Your task to perform on an android device: turn off notifications in google photos Image 0: 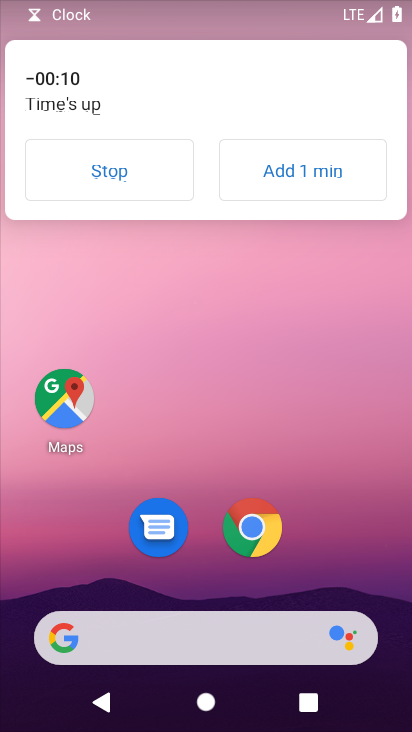
Step 0: drag from (362, 555) to (367, 172)
Your task to perform on an android device: turn off notifications in google photos Image 1: 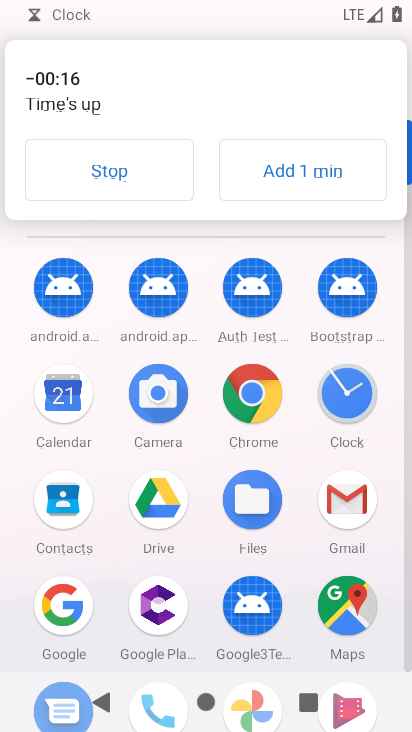
Step 1: drag from (202, 624) to (207, 327)
Your task to perform on an android device: turn off notifications in google photos Image 2: 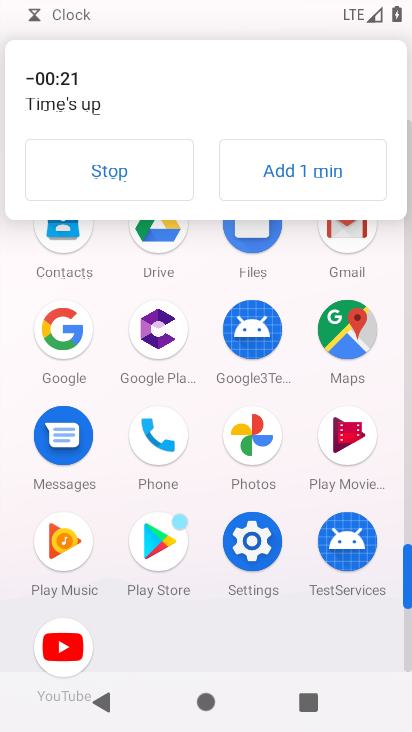
Step 2: click (259, 434)
Your task to perform on an android device: turn off notifications in google photos Image 3: 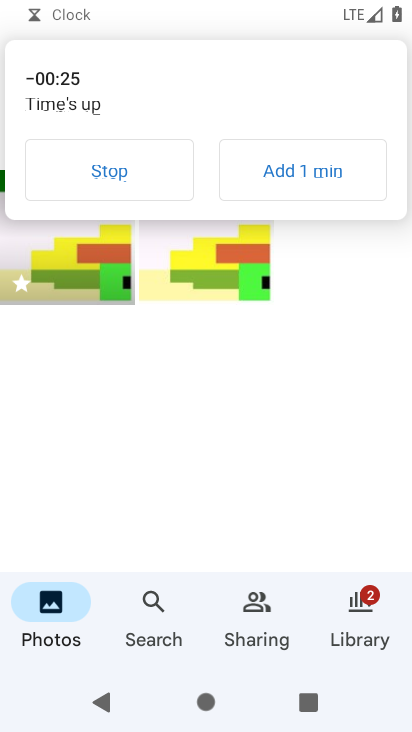
Step 3: click (113, 170)
Your task to perform on an android device: turn off notifications in google photos Image 4: 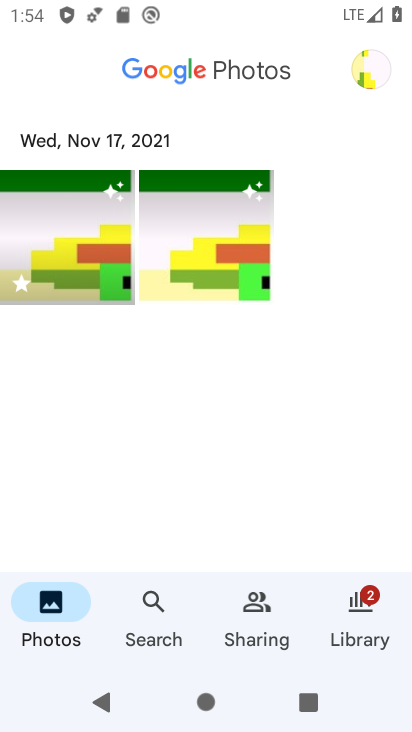
Step 4: click (365, 69)
Your task to perform on an android device: turn off notifications in google photos Image 5: 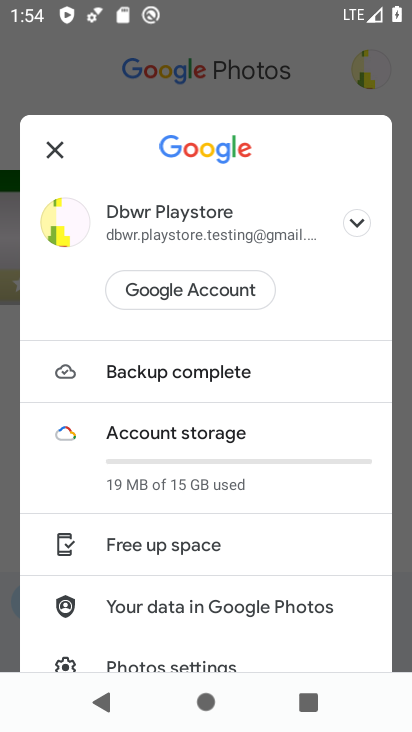
Step 5: drag from (300, 534) to (310, 409)
Your task to perform on an android device: turn off notifications in google photos Image 6: 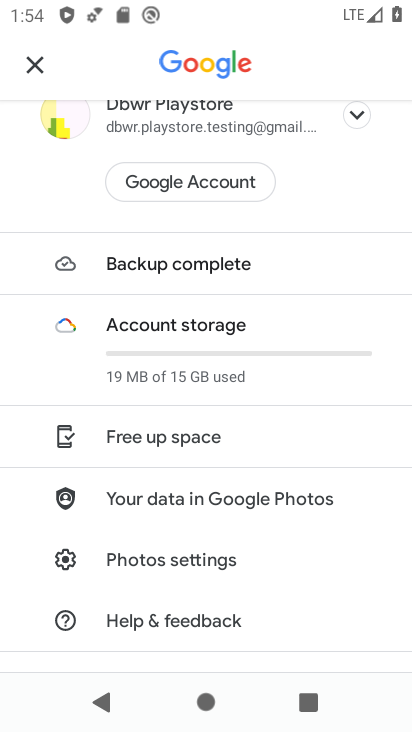
Step 6: drag from (297, 612) to (315, 425)
Your task to perform on an android device: turn off notifications in google photos Image 7: 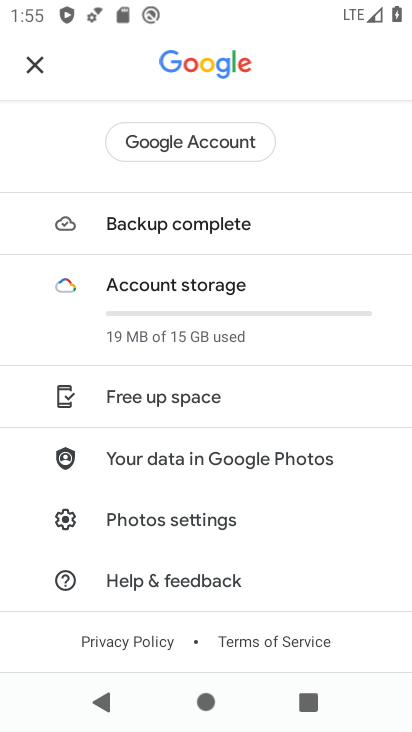
Step 7: drag from (299, 586) to (302, 408)
Your task to perform on an android device: turn off notifications in google photos Image 8: 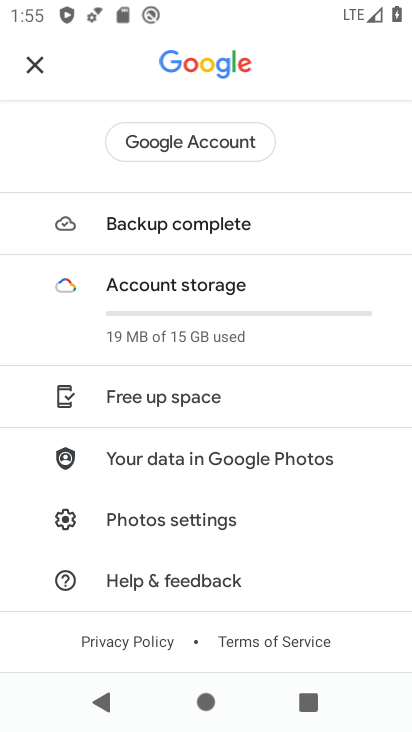
Step 8: click (214, 522)
Your task to perform on an android device: turn off notifications in google photos Image 9: 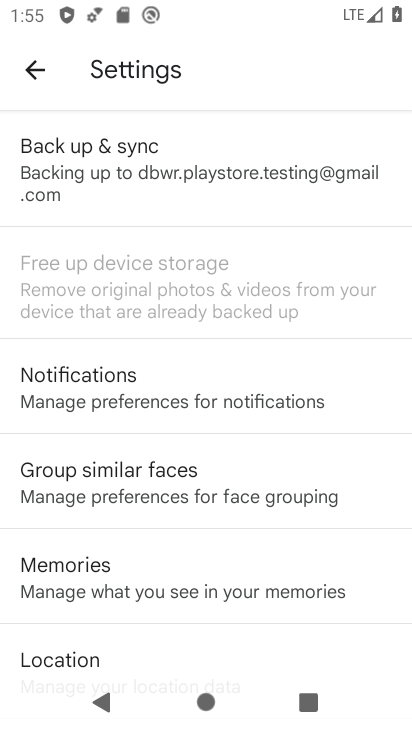
Step 9: drag from (275, 617) to (273, 506)
Your task to perform on an android device: turn off notifications in google photos Image 10: 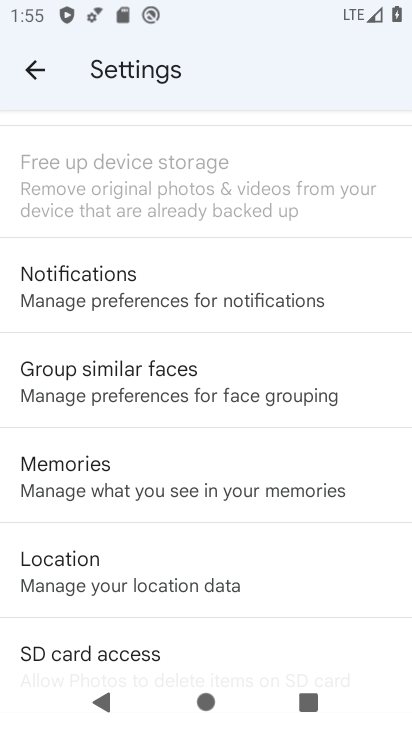
Step 10: drag from (276, 609) to (288, 494)
Your task to perform on an android device: turn off notifications in google photos Image 11: 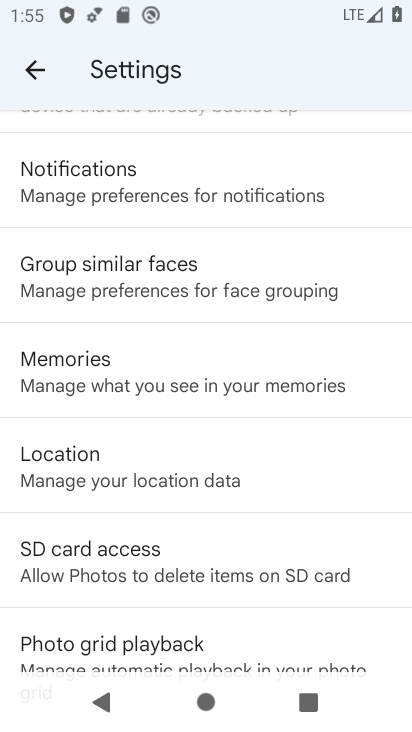
Step 11: drag from (277, 574) to (288, 521)
Your task to perform on an android device: turn off notifications in google photos Image 12: 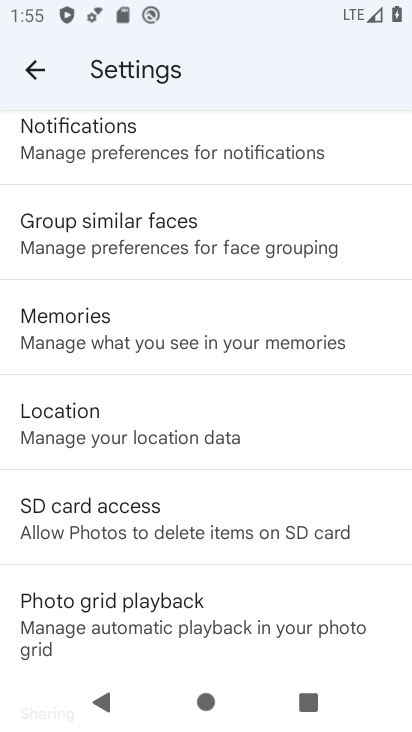
Step 12: drag from (277, 577) to (291, 464)
Your task to perform on an android device: turn off notifications in google photos Image 13: 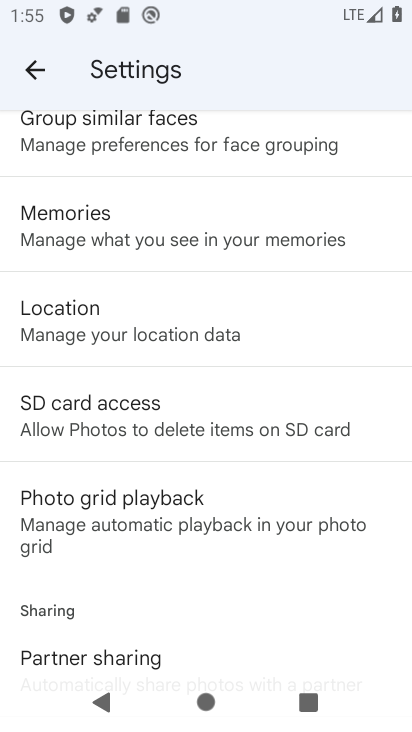
Step 13: drag from (266, 582) to (281, 537)
Your task to perform on an android device: turn off notifications in google photos Image 14: 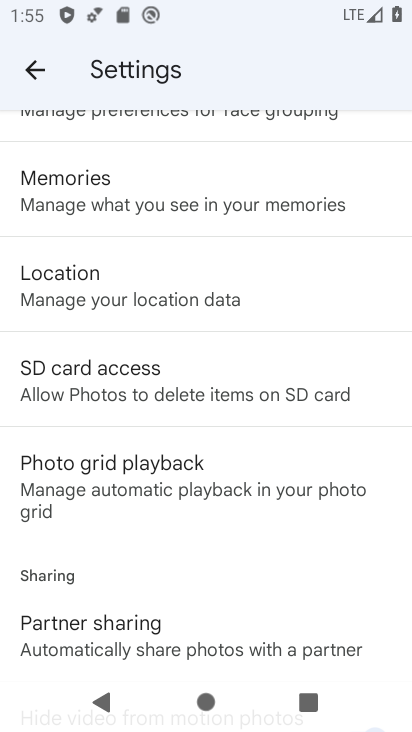
Step 14: drag from (271, 567) to (287, 458)
Your task to perform on an android device: turn off notifications in google photos Image 15: 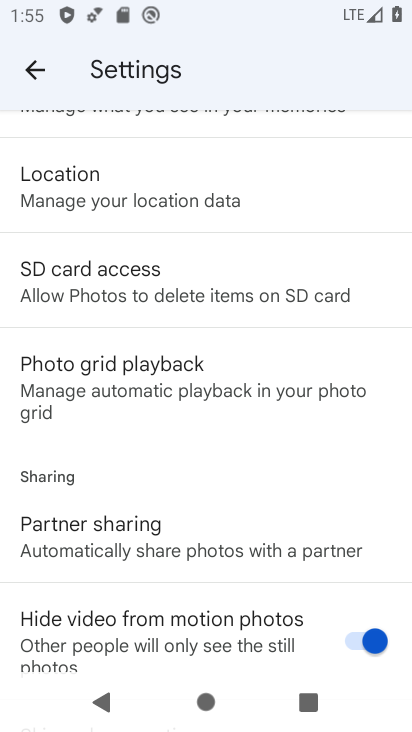
Step 15: drag from (357, 242) to (362, 345)
Your task to perform on an android device: turn off notifications in google photos Image 16: 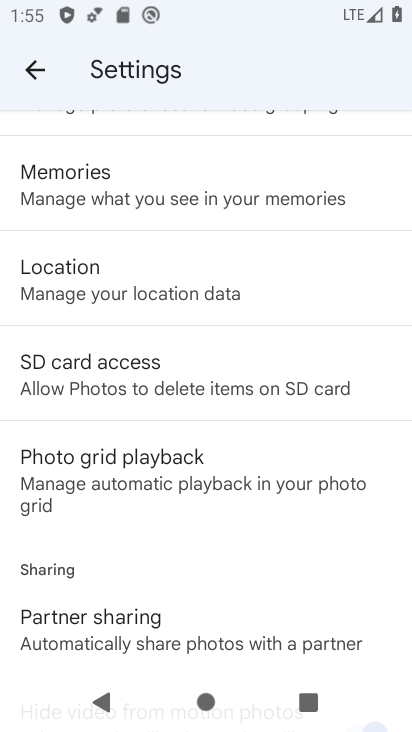
Step 16: drag from (365, 275) to (365, 356)
Your task to perform on an android device: turn off notifications in google photos Image 17: 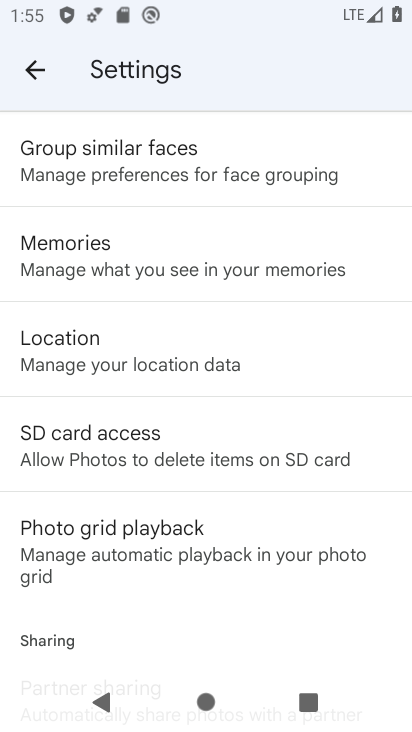
Step 17: drag from (356, 312) to (354, 383)
Your task to perform on an android device: turn off notifications in google photos Image 18: 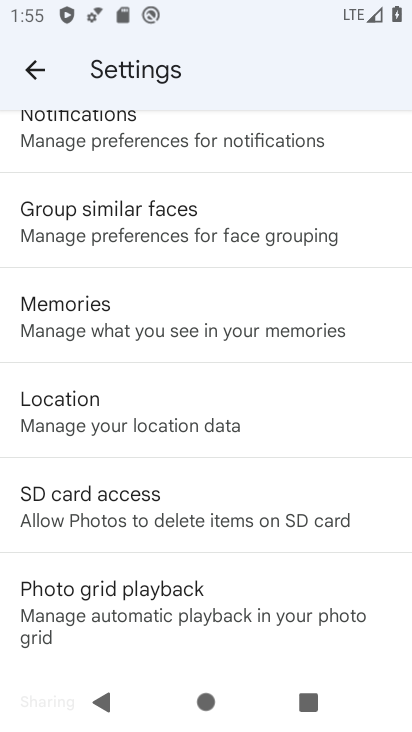
Step 18: click (354, 383)
Your task to perform on an android device: turn off notifications in google photos Image 19: 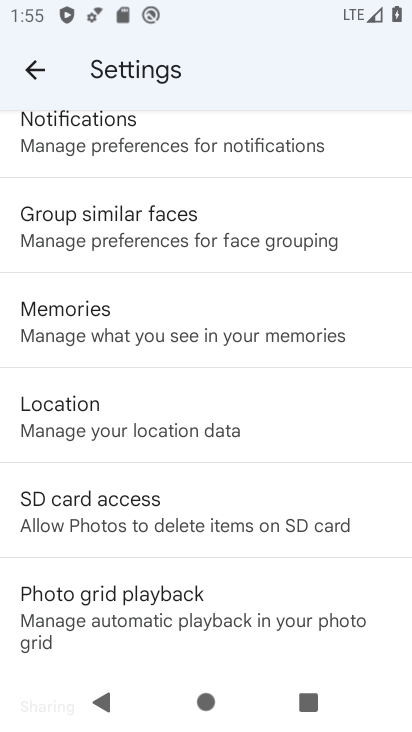
Step 19: drag from (354, 324) to (349, 399)
Your task to perform on an android device: turn off notifications in google photos Image 20: 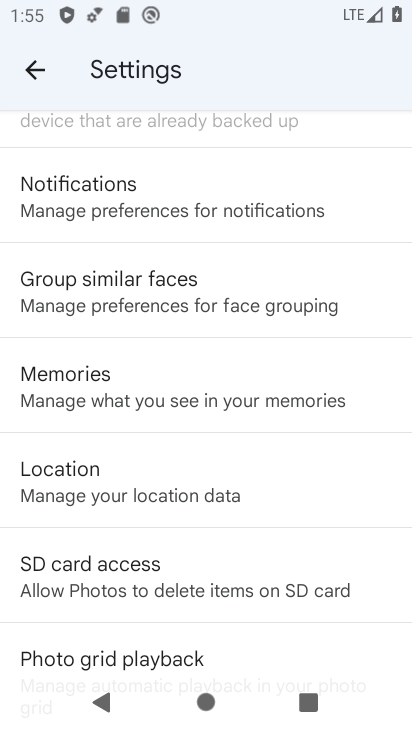
Step 20: drag from (350, 341) to (356, 453)
Your task to perform on an android device: turn off notifications in google photos Image 21: 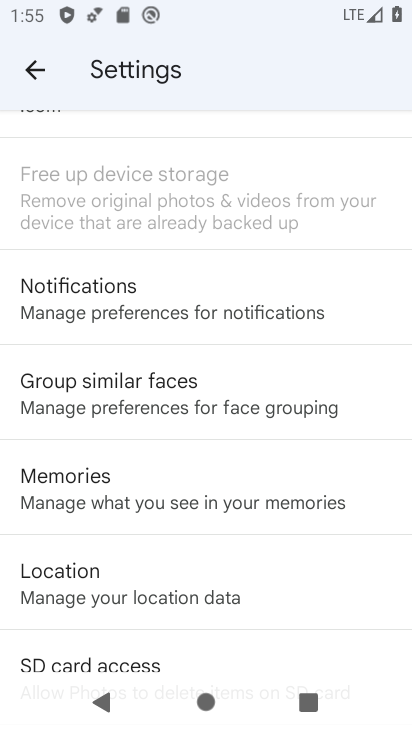
Step 21: drag from (367, 375) to (368, 420)
Your task to perform on an android device: turn off notifications in google photos Image 22: 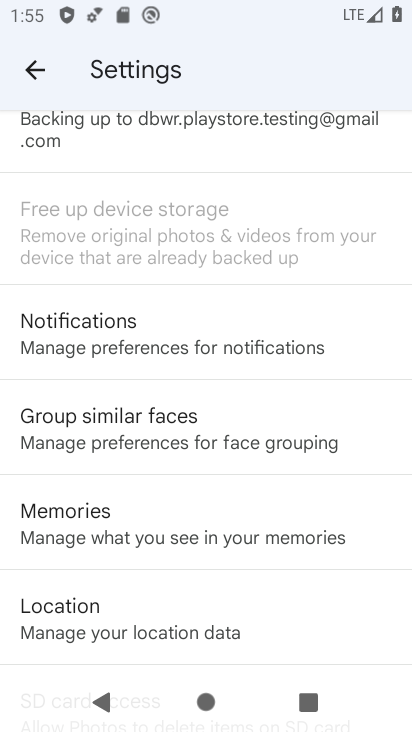
Step 22: drag from (376, 358) to (376, 462)
Your task to perform on an android device: turn off notifications in google photos Image 23: 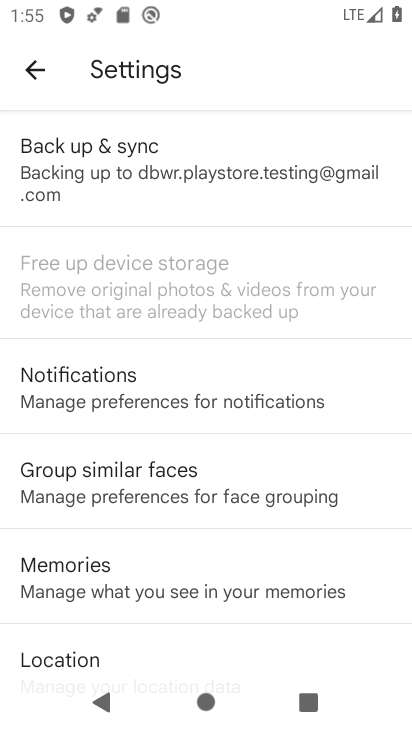
Step 23: click (246, 393)
Your task to perform on an android device: turn off notifications in google photos Image 24: 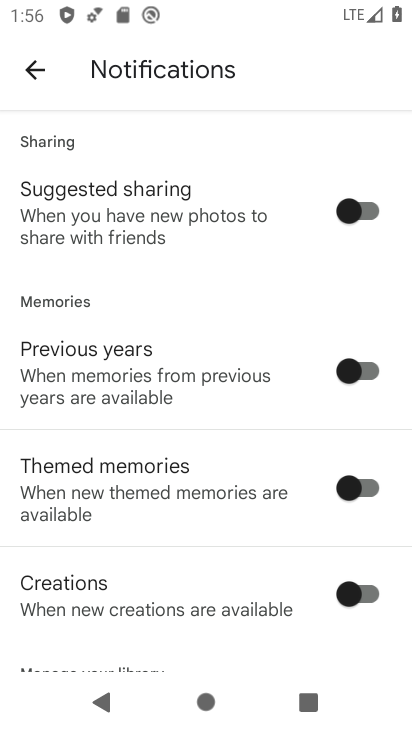
Step 24: drag from (262, 532) to (287, 434)
Your task to perform on an android device: turn off notifications in google photos Image 25: 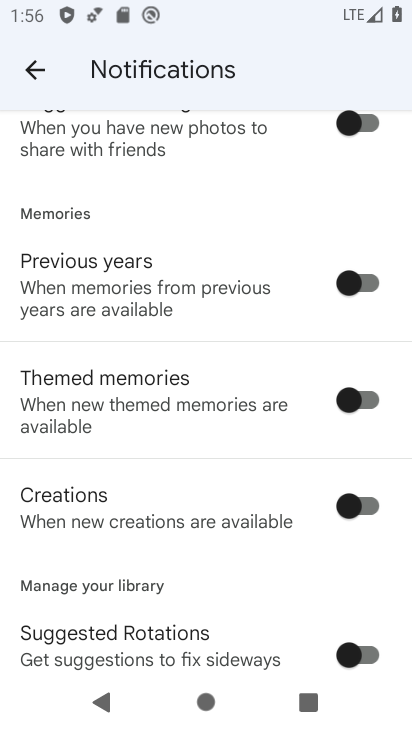
Step 25: drag from (265, 589) to (284, 471)
Your task to perform on an android device: turn off notifications in google photos Image 26: 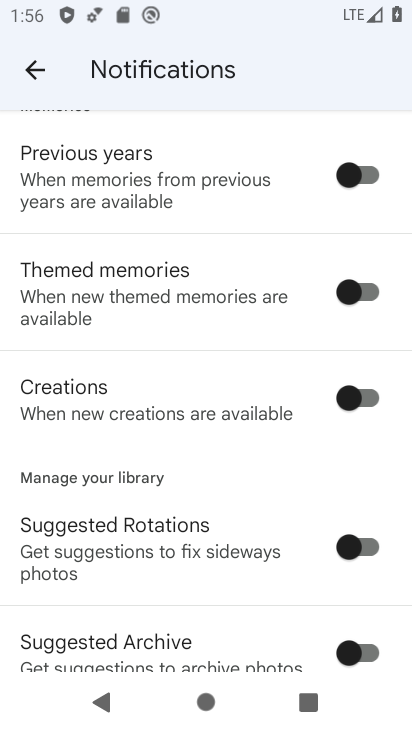
Step 26: drag from (251, 571) to (266, 513)
Your task to perform on an android device: turn off notifications in google photos Image 27: 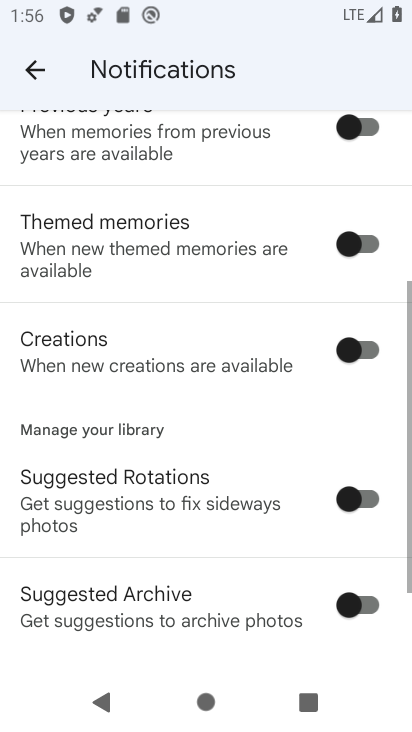
Step 27: drag from (256, 561) to (270, 522)
Your task to perform on an android device: turn off notifications in google photos Image 28: 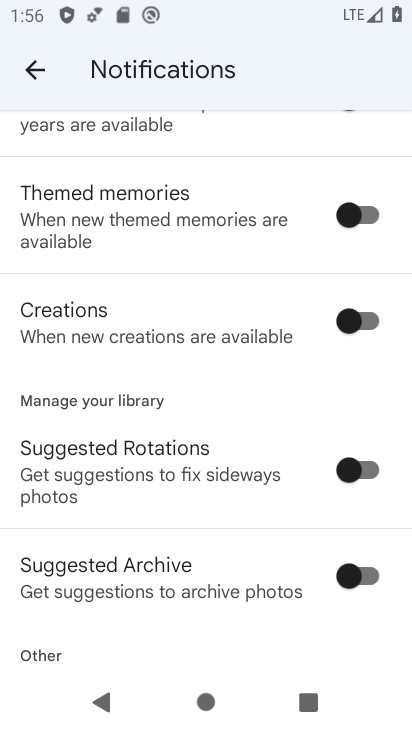
Step 28: drag from (251, 555) to (264, 469)
Your task to perform on an android device: turn off notifications in google photos Image 29: 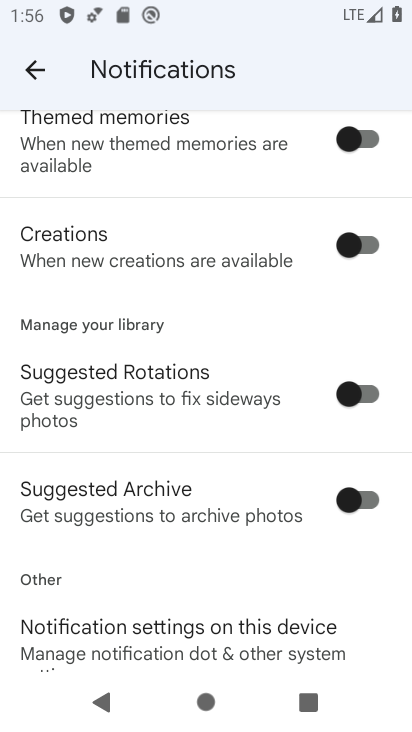
Step 29: drag from (234, 535) to (247, 504)
Your task to perform on an android device: turn off notifications in google photos Image 30: 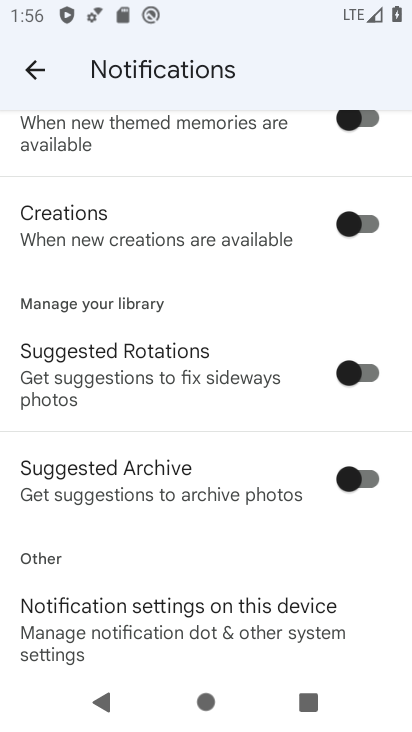
Step 30: drag from (241, 538) to (258, 505)
Your task to perform on an android device: turn off notifications in google photos Image 31: 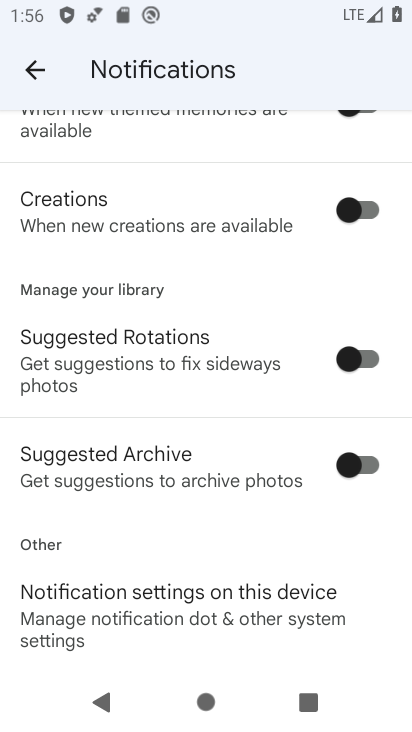
Step 31: drag from (258, 505) to (278, 428)
Your task to perform on an android device: turn off notifications in google photos Image 32: 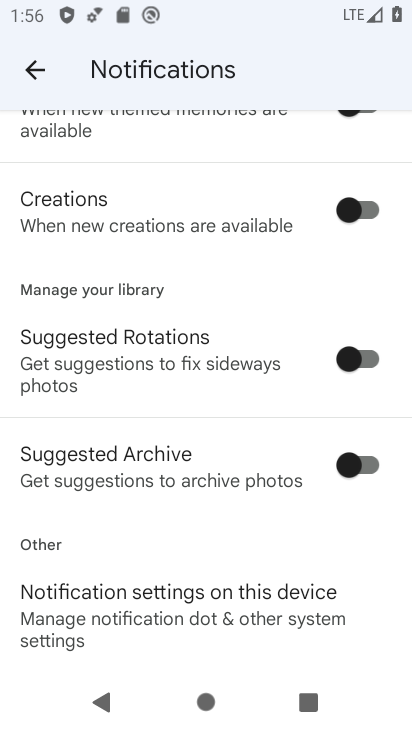
Step 32: click (228, 593)
Your task to perform on an android device: turn off notifications in google photos Image 33: 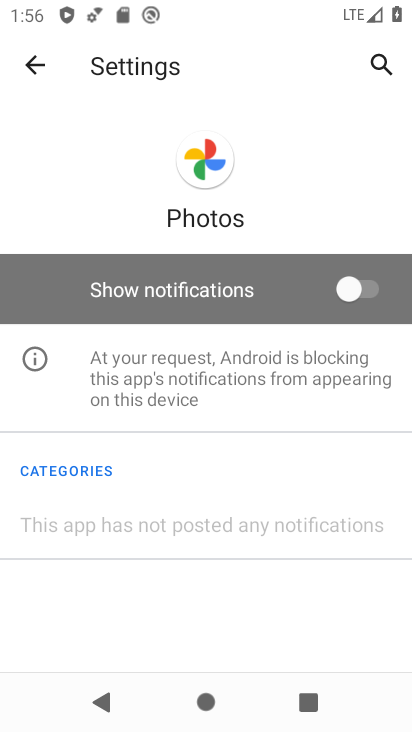
Step 33: task complete